Your task to perform on an android device: What's the weather today? Image 0: 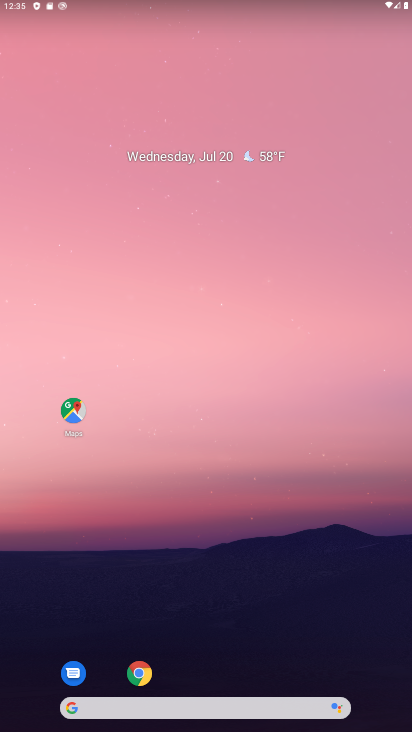
Step 0: click (267, 155)
Your task to perform on an android device: What's the weather today? Image 1: 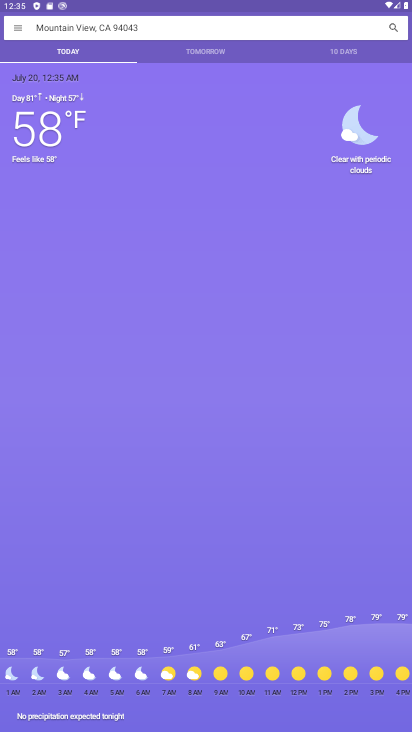
Step 1: task complete